Your task to perform on an android device: Open eBay Image 0: 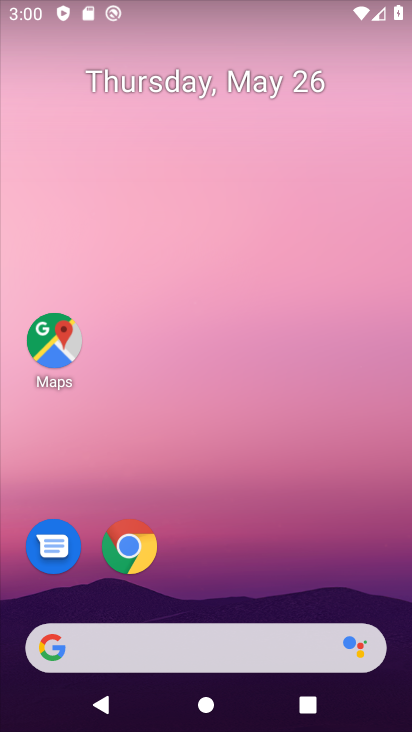
Step 0: click (124, 545)
Your task to perform on an android device: Open eBay Image 1: 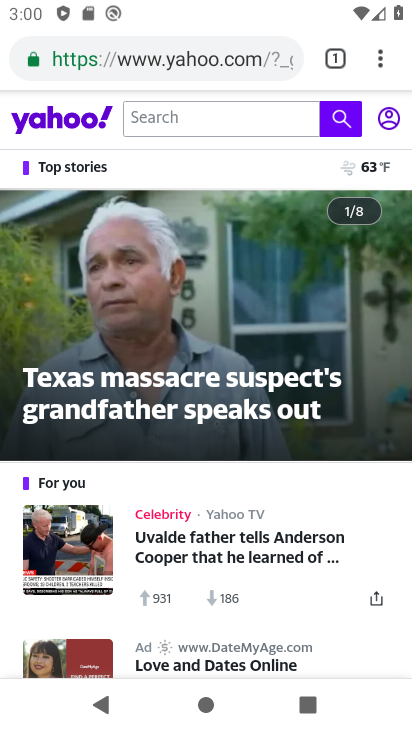
Step 1: click (336, 58)
Your task to perform on an android device: Open eBay Image 2: 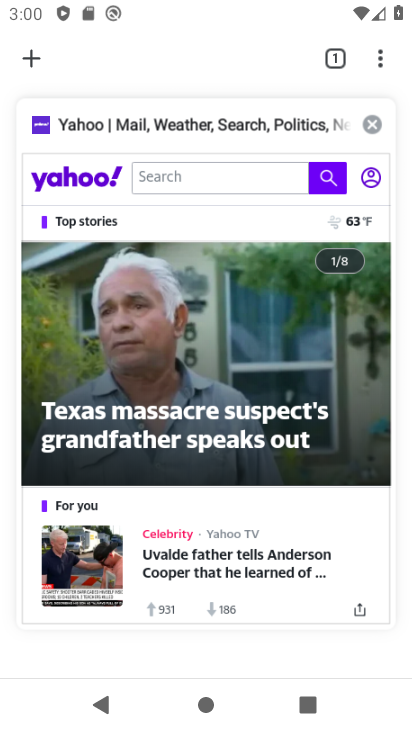
Step 2: click (40, 70)
Your task to perform on an android device: Open eBay Image 3: 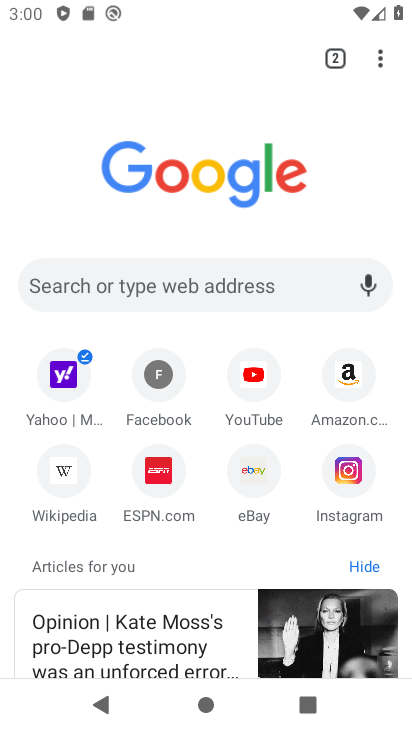
Step 3: click (247, 487)
Your task to perform on an android device: Open eBay Image 4: 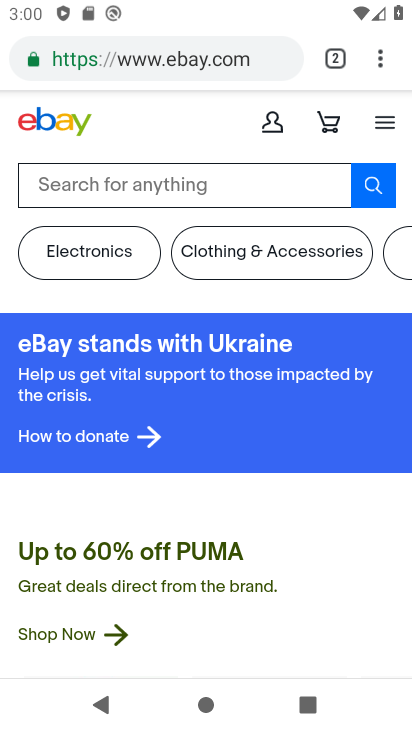
Step 4: task complete